Your task to perform on an android device: Open display settings Image 0: 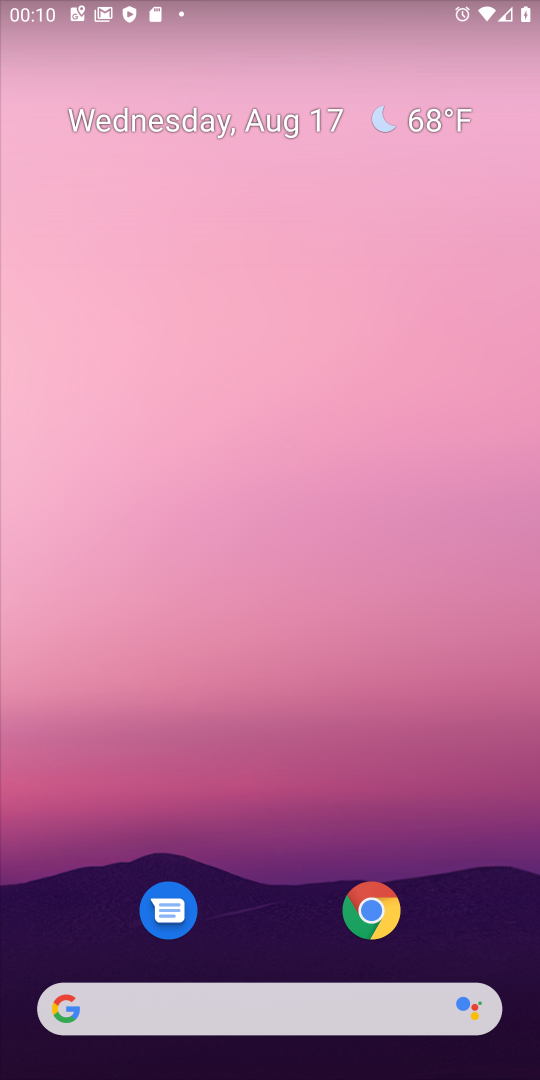
Step 0: drag from (255, 829) to (393, 106)
Your task to perform on an android device: Open display settings Image 1: 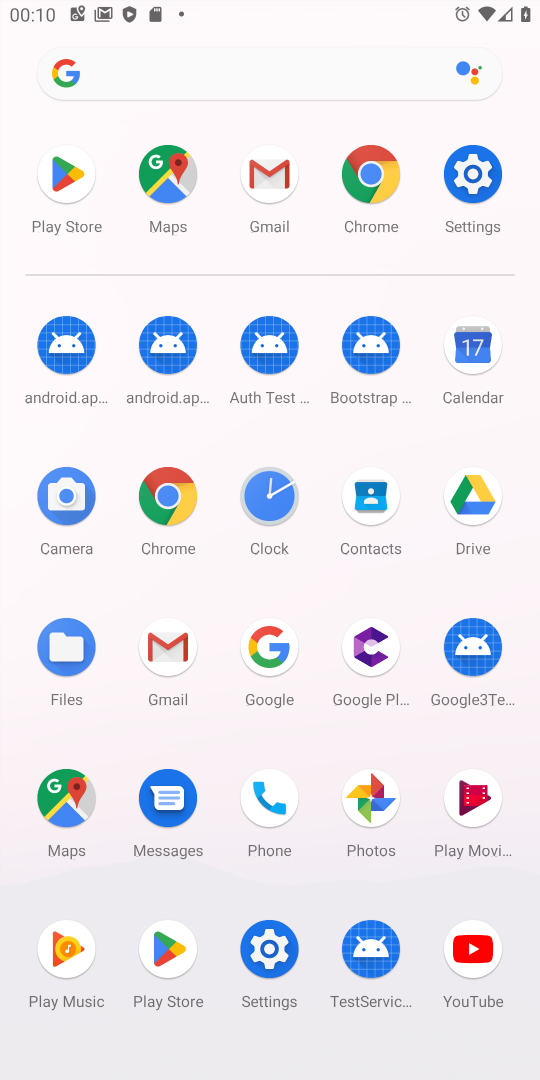
Step 1: click (284, 950)
Your task to perform on an android device: Open display settings Image 2: 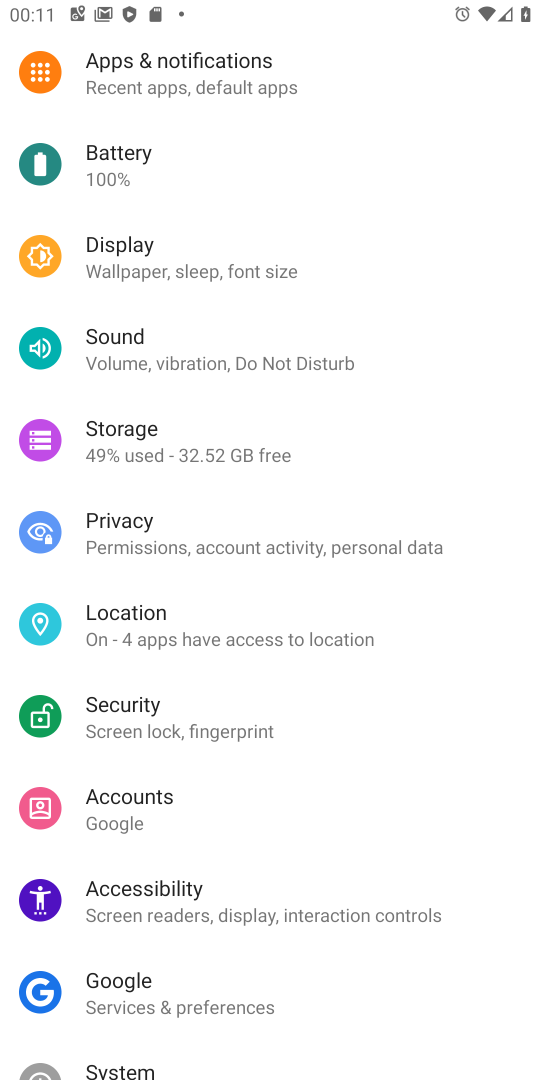
Step 2: click (170, 264)
Your task to perform on an android device: Open display settings Image 3: 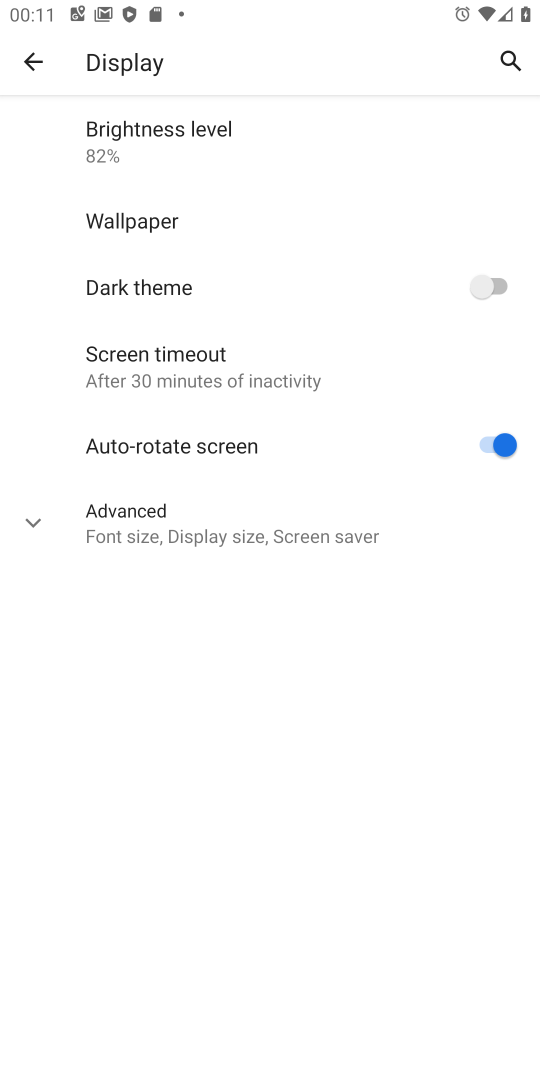
Step 3: task complete